Your task to perform on an android device: change the clock style Image 0: 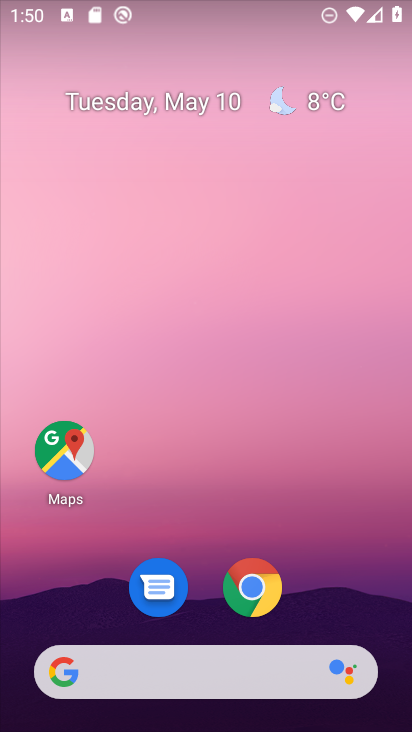
Step 0: drag from (397, 604) to (367, 211)
Your task to perform on an android device: change the clock style Image 1: 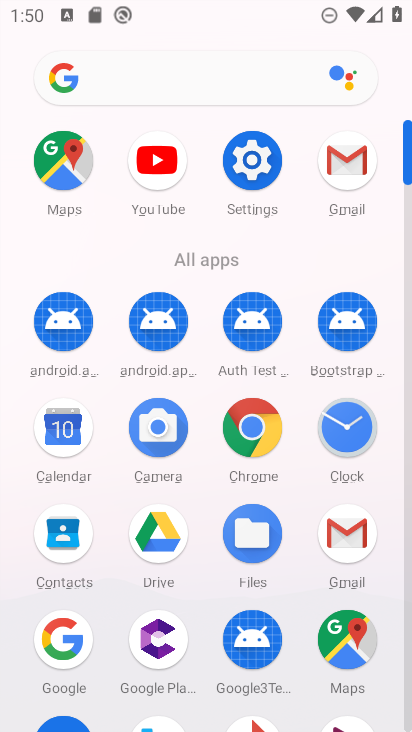
Step 1: click (340, 420)
Your task to perform on an android device: change the clock style Image 2: 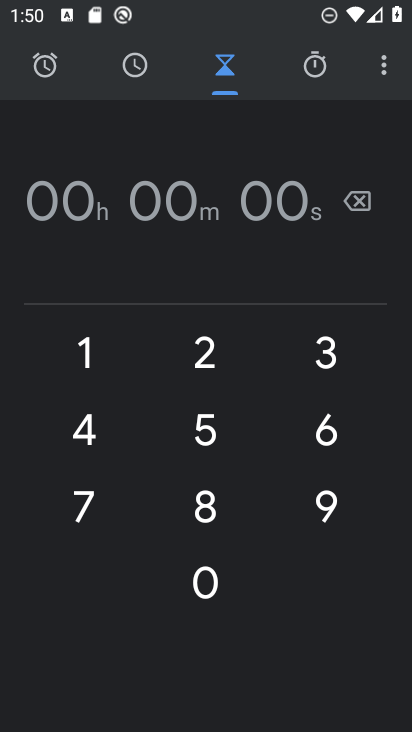
Step 2: click (131, 66)
Your task to perform on an android device: change the clock style Image 3: 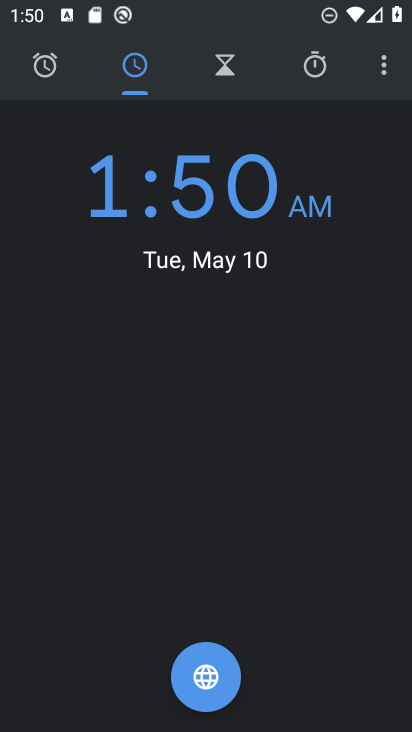
Step 3: click (380, 58)
Your task to perform on an android device: change the clock style Image 4: 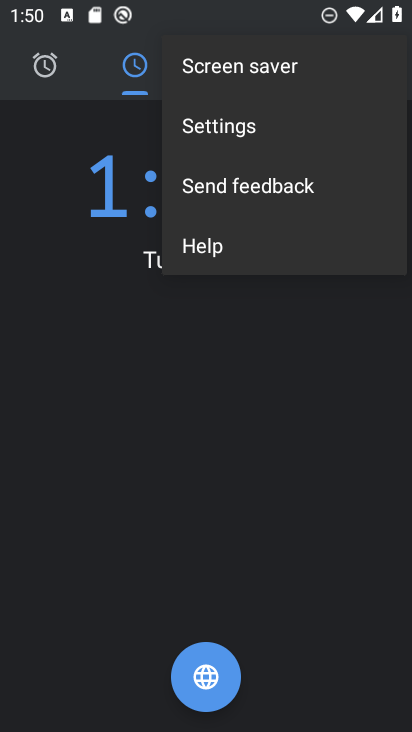
Step 4: click (240, 121)
Your task to perform on an android device: change the clock style Image 5: 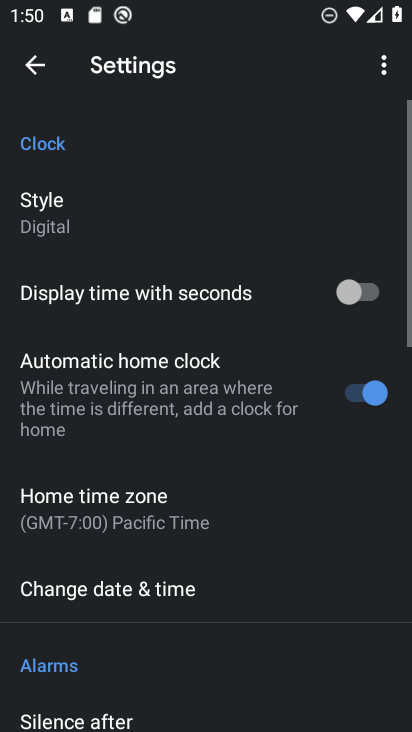
Step 5: click (50, 198)
Your task to perform on an android device: change the clock style Image 6: 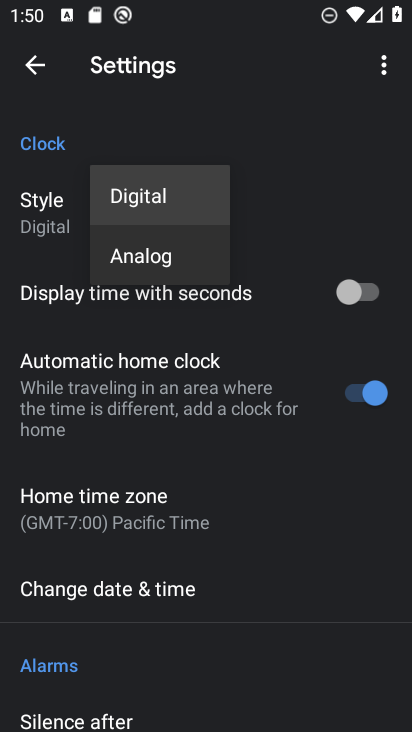
Step 6: click (124, 250)
Your task to perform on an android device: change the clock style Image 7: 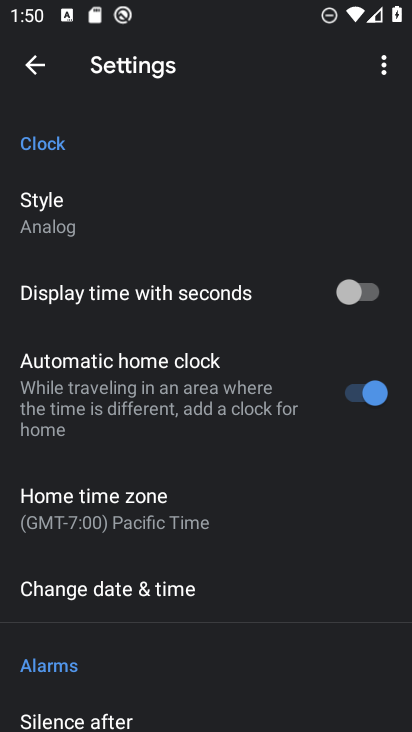
Step 7: task complete